Your task to perform on an android device: turn off wifi Image 0: 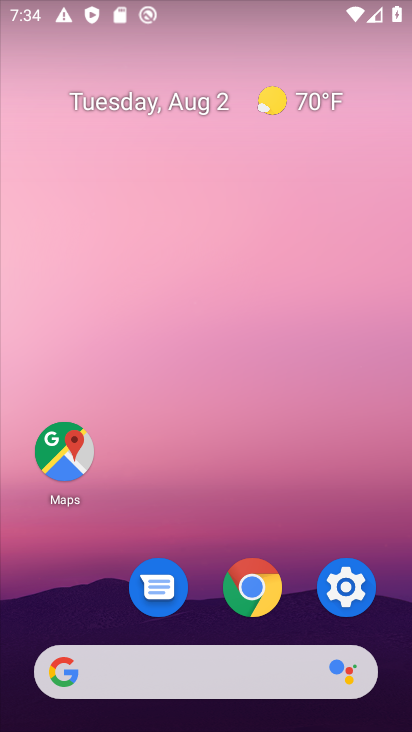
Step 0: click (341, 573)
Your task to perform on an android device: turn off wifi Image 1: 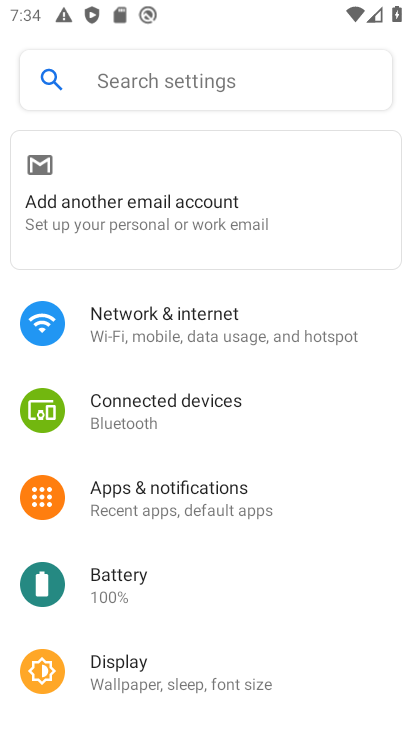
Step 1: click (139, 328)
Your task to perform on an android device: turn off wifi Image 2: 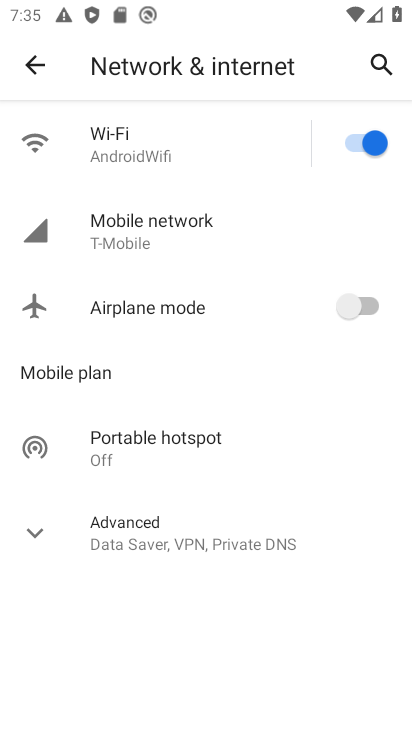
Step 2: click (112, 141)
Your task to perform on an android device: turn off wifi Image 3: 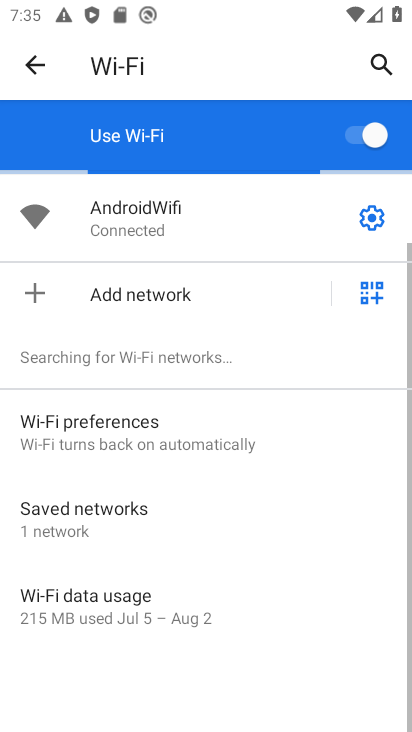
Step 3: click (374, 143)
Your task to perform on an android device: turn off wifi Image 4: 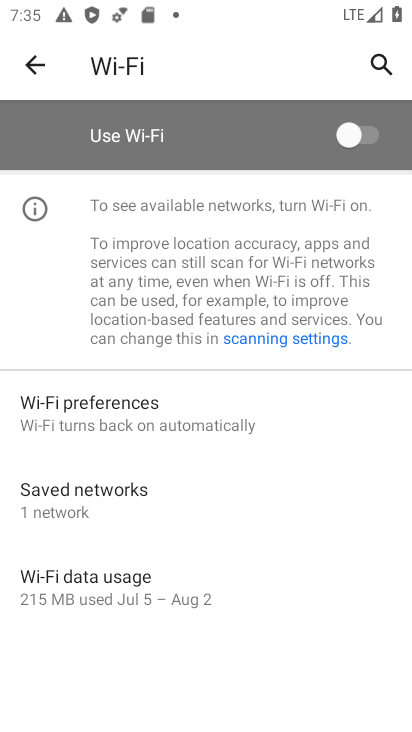
Step 4: task complete